Your task to perform on an android device: delete location history Image 0: 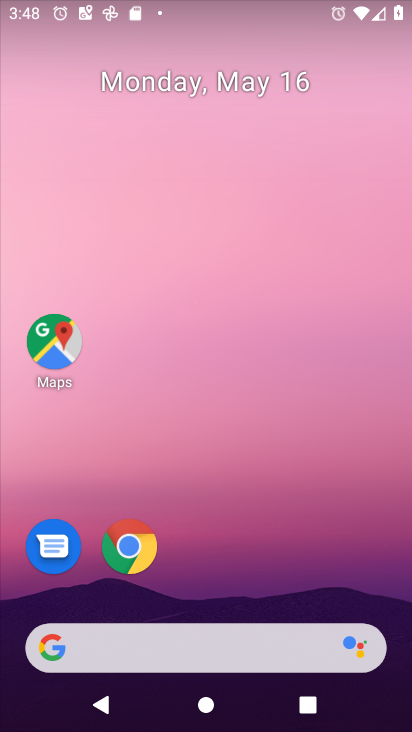
Step 0: drag from (357, 582) to (372, 89)
Your task to perform on an android device: delete location history Image 1: 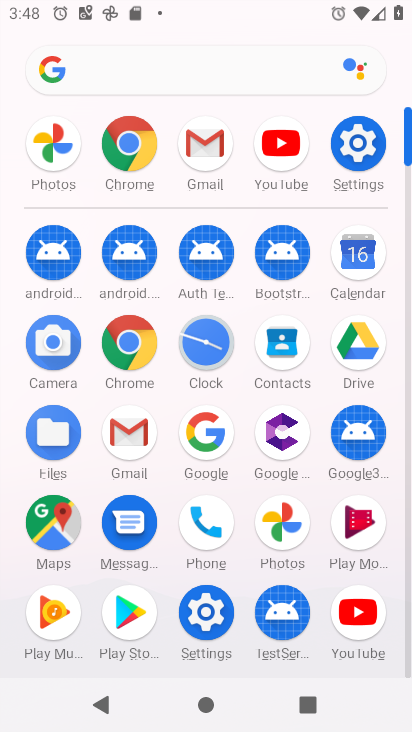
Step 1: click (50, 536)
Your task to perform on an android device: delete location history Image 2: 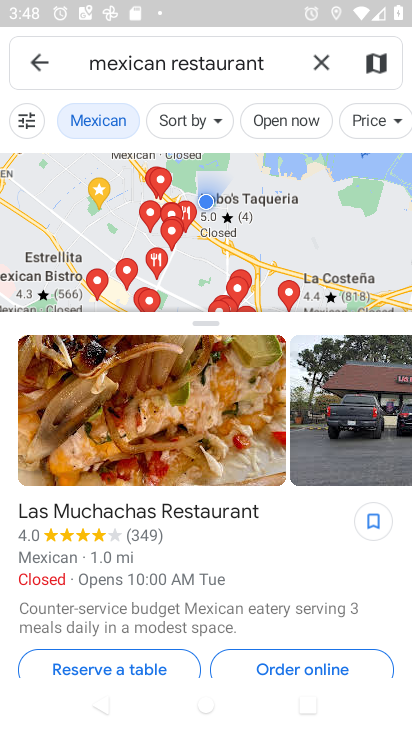
Step 2: click (323, 61)
Your task to perform on an android device: delete location history Image 3: 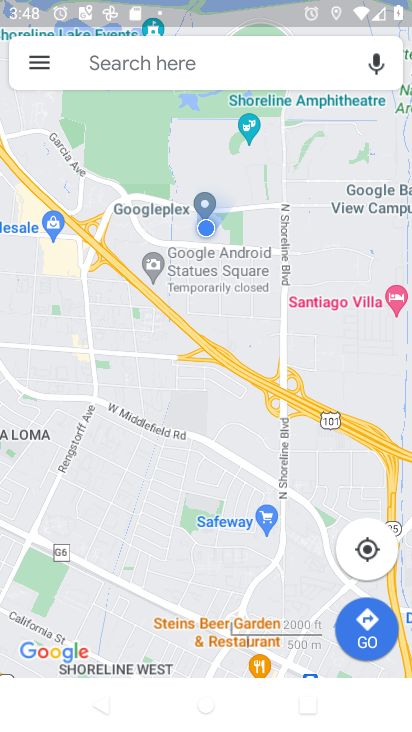
Step 3: click (39, 64)
Your task to perform on an android device: delete location history Image 4: 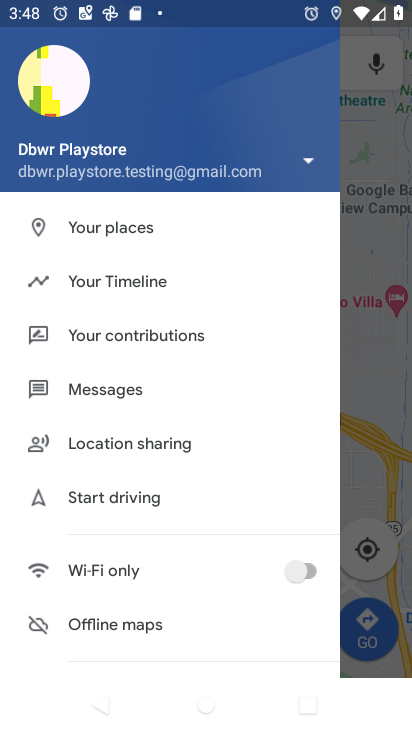
Step 4: click (153, 289)
Your task to perform on an android device: delete location history Image 5: 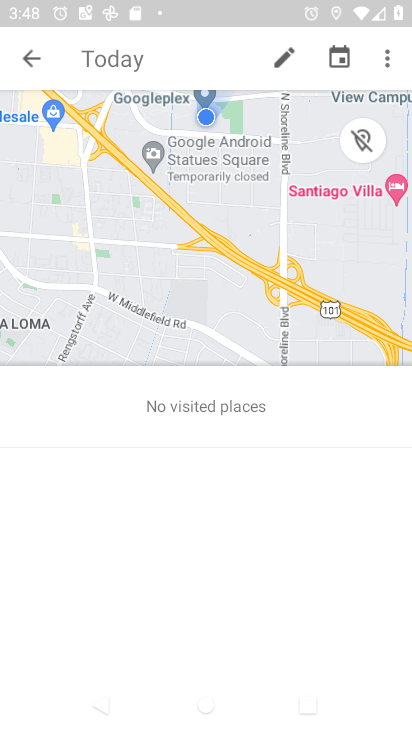
Step 5: click (388, 63)
Your task to perform on an android device: delete location history Image 6: 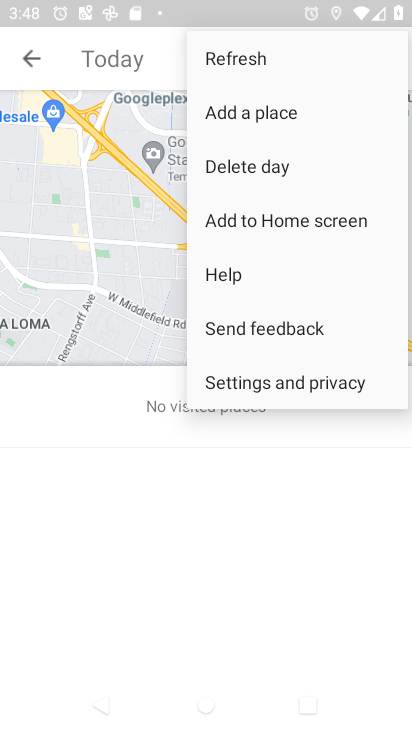
Step 6: click (323, 381)
Your task to perform on an android device: delete location history Image 7: 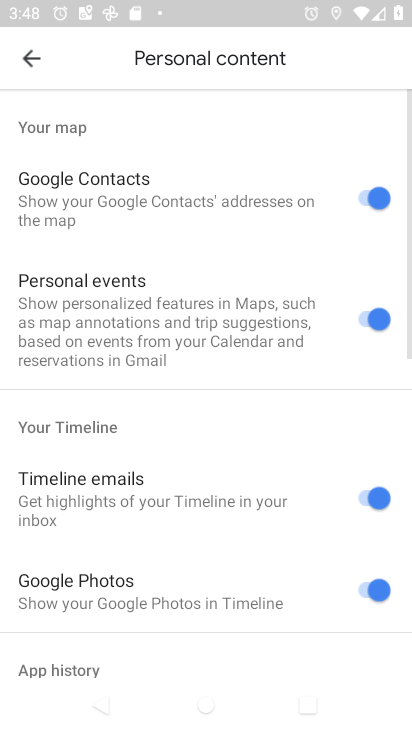
Step 7: drag from (278, 634) to (303, 439)
Your task to perform on an android device: delete location history Image 8: 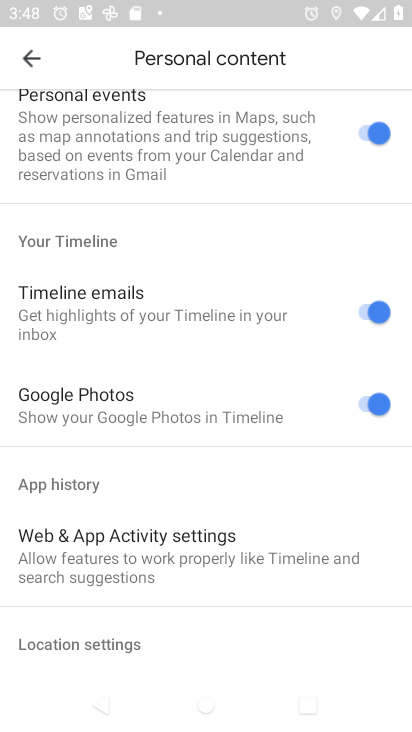
Step 8: drag from (306, 626) to (317, 475)
Your task to perform on an android device: delete location history Image 9: 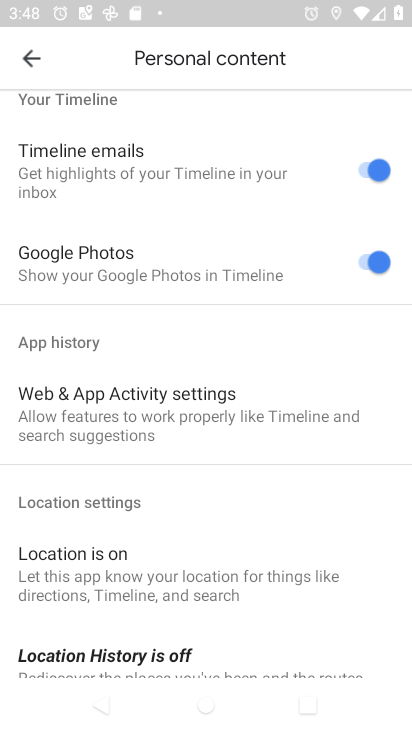
Step 9: drag from (293, 636) to (293, 410)
Your task to perform on an android device: delete location history Image 10: 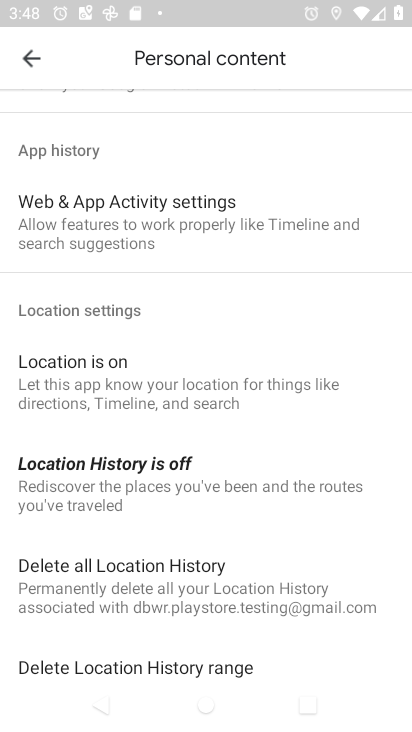
Step 10: click (211, 581)
Your task to perform on an android device: delete location history Image 11: 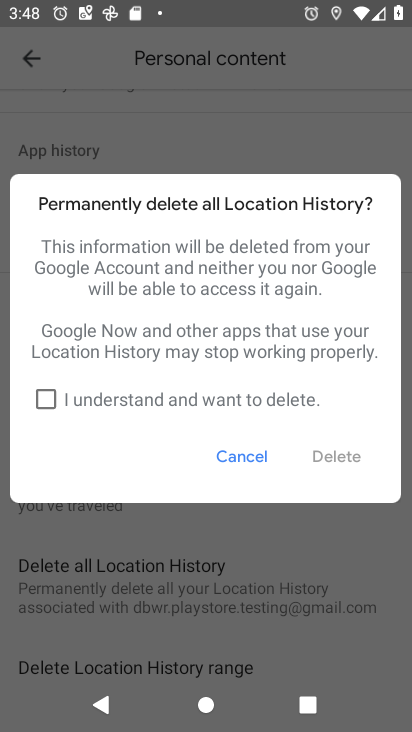
Step 11: click (47, 399)
Your task to perform on an android device: delete location history Image 12: 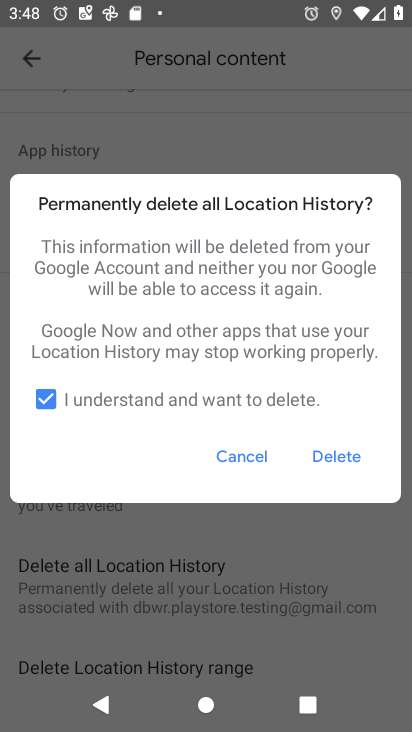
Step 12: click (343, 468)
Your task to perform on an android device: delete location history Image 13: 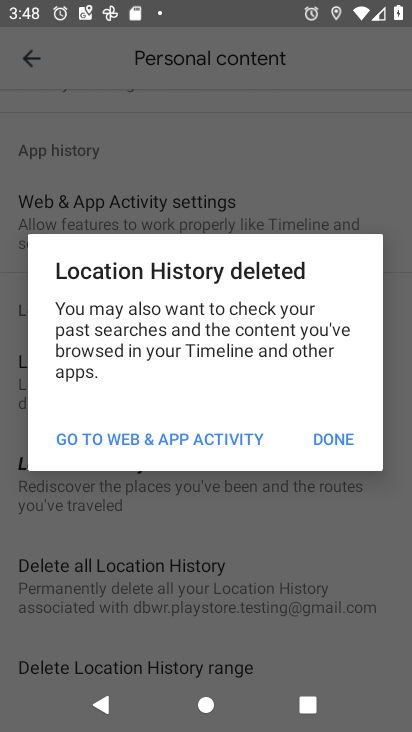
Step 13: click (327, 445)
Your task to perform on an android device: delete location history Image 14: 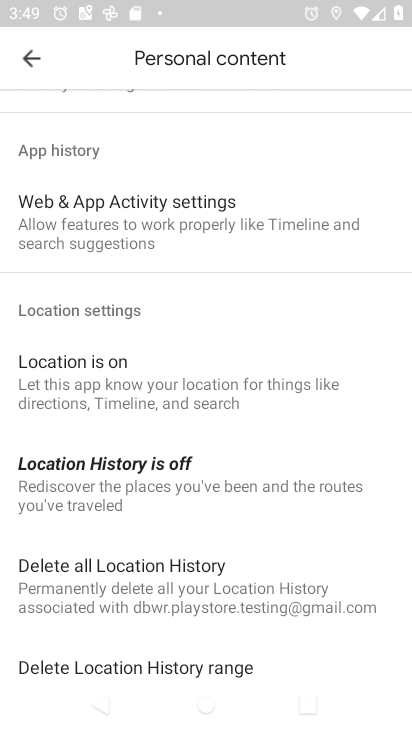
Step 14: task complete